Your task to perform on an android device: Show the shopping cart on costco.com. Image 0: 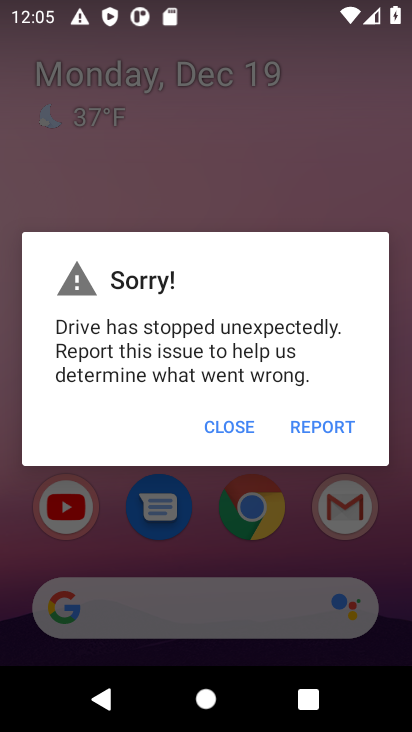
Step 0: press home button
Your task to perform on an android device: Show the shopping cart on costco.com. Image 1: 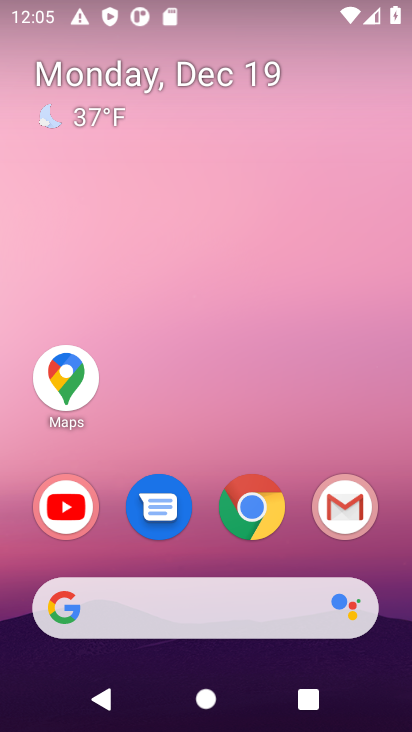
Step 1: click (256, 524)
Your task to perform on an android device: Show the shopping cart on costco.com. Image 2: 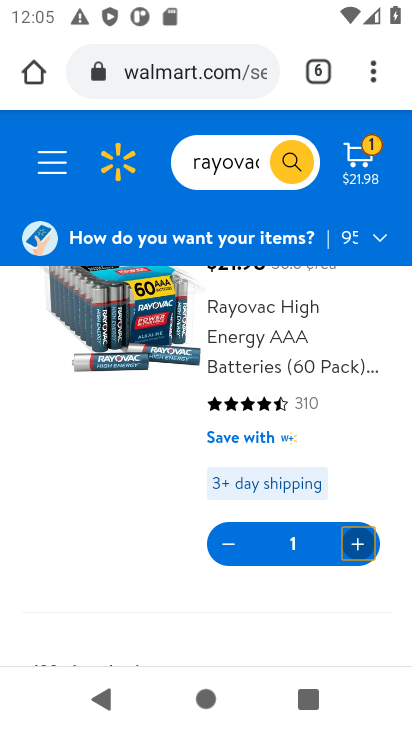
Step 2: click (196, 81)
Your task to perform on an android device: Show the shopping cart on costco.com. Image 3: 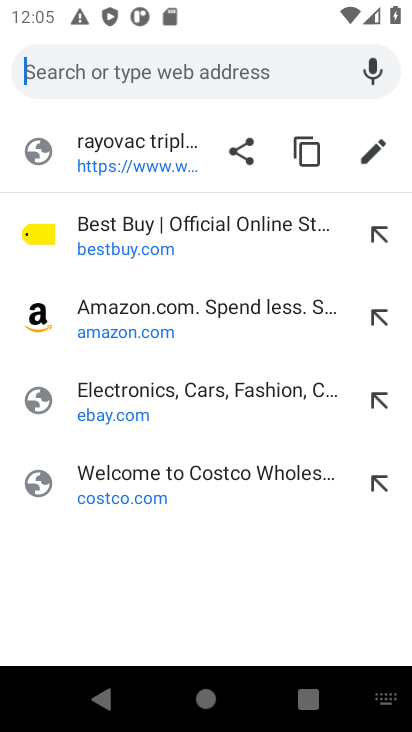
Step 3: click (110, 491)
Your task to perform on an android device: Show the shopping cart on costco.com. Image 4: 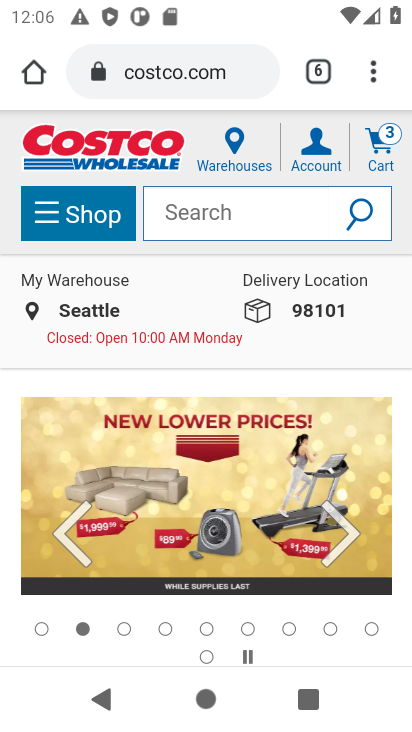
Step 4: click (376, 153)
Your task to perform on an android device: Show the shopping cart on costco.com. Image 5: 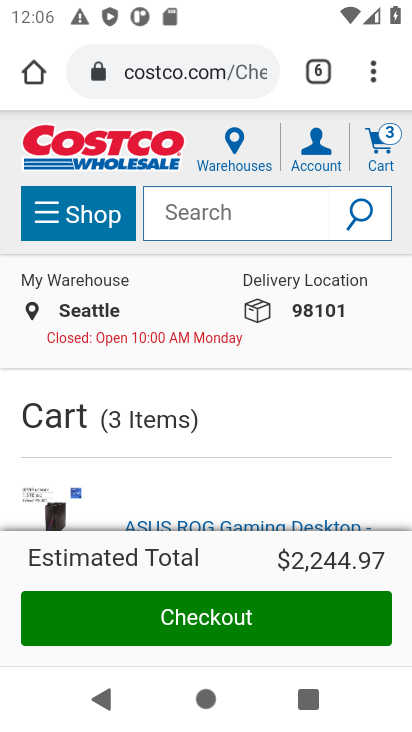
Step 5: task complete